Your task to perform on an android device: Show me recent news Image 0: 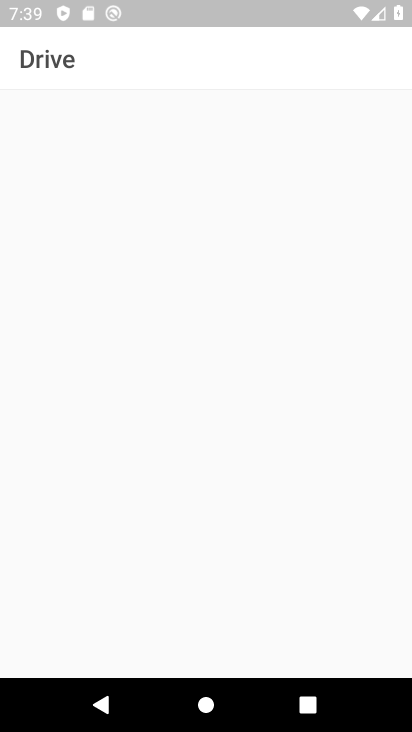
Step 0: press home button
Your task to perform on an android device: Show me recent news Image 1: 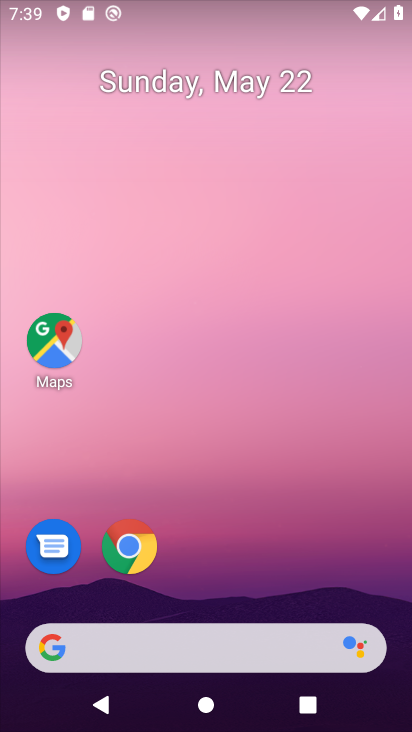
Step 1: drag from (331, 496) to (45, 74)
Your task to perform on an android device: Show me recent news Image 2: 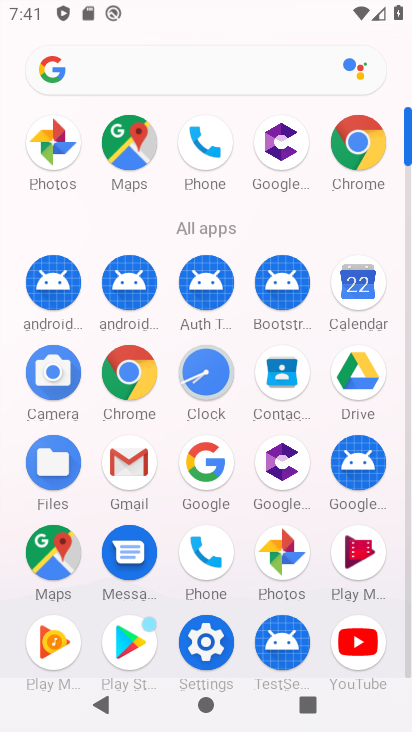
Step 2: click (334, 219)
Your task to perform on an android device: Show me recent news Image 3: 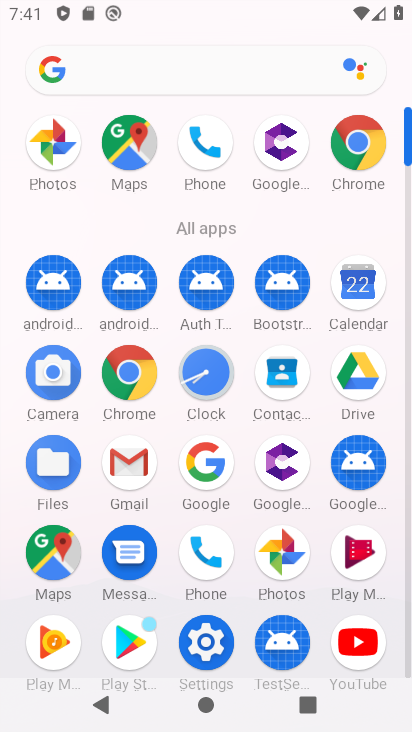
Step 3: click (336, 159)
Your task to perform on an android device: Show me recent news Image 4: 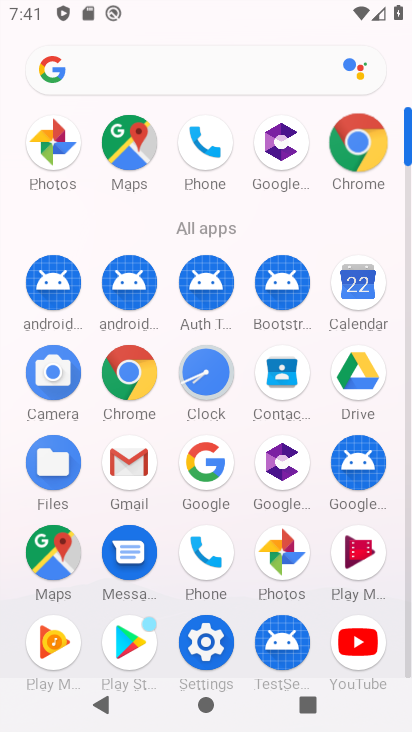
Step 4: click (349, 154)
Your task to perform on an android device: Show me recent news Image 5: 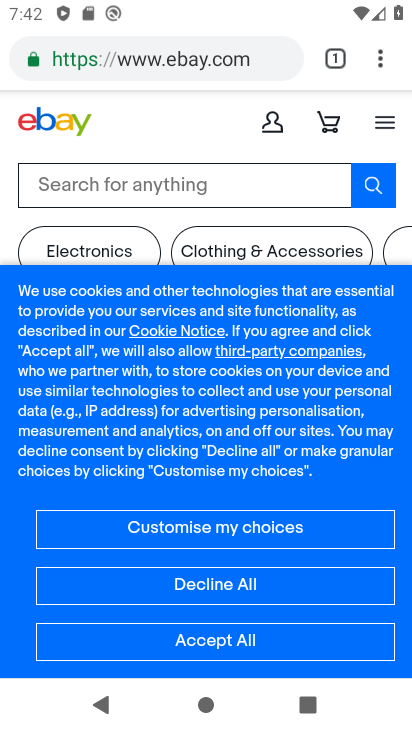
Step 5: task complete